Your task to perform on an android device: change your default location settings in chrome Image 0: 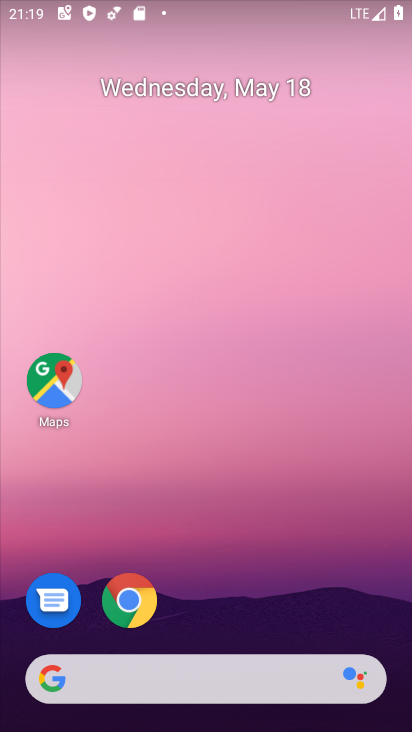
Step 0: click (135, 597)
Your task to perform on an android device: change your default location settings in chrome Image 1: 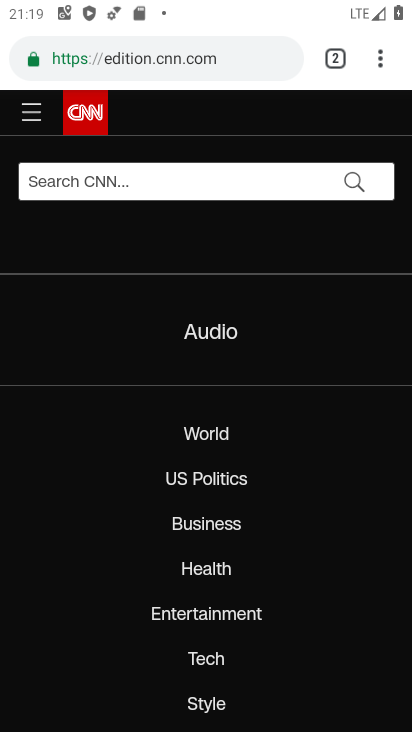
Step 1: drag from (376, 56) to (217, 633)
Your task to perform on an android device: change your default location settings in chrome Image 2: 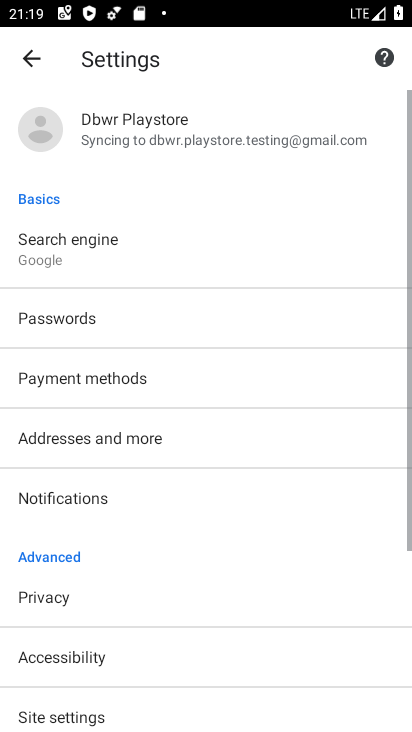
Step 2: drag from (214, 615) to (256, 309)
Your task to perform on an android device: change your default location settings in chrome Image 3: 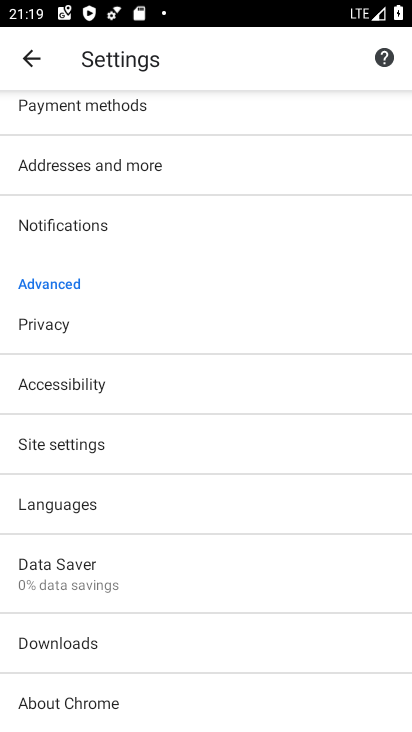
Step 3: click (90, 461)
Your task to perform on an android device: change your default location settings in chrome Image 4: 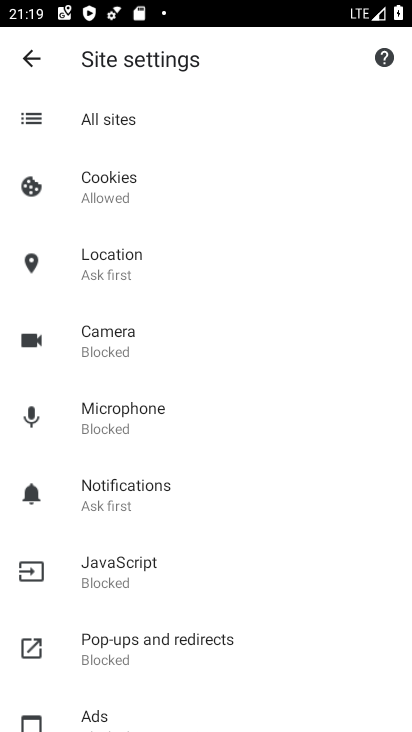
Step 4: click (123, 273)
Your task to perform on an android device: change your default location settings in chrome Image 5: 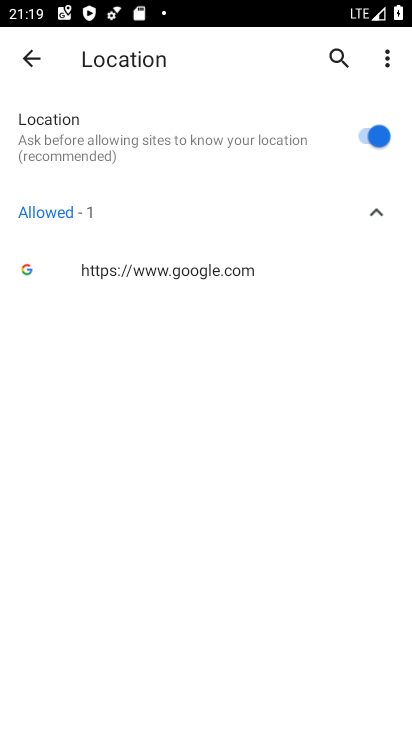
Step 5: click (258, 266)
Your task to perform on an android device: change your default location settings in chrome Image 6: 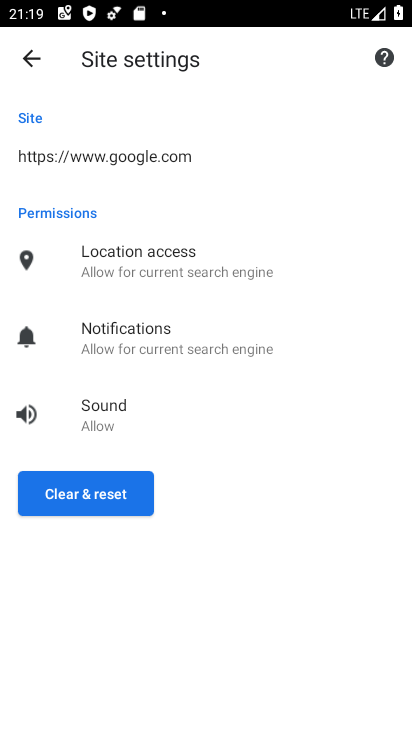
Step 6: click (211, 246)
Your task to perform on an android device: change your default location settings in chrome Image 7: 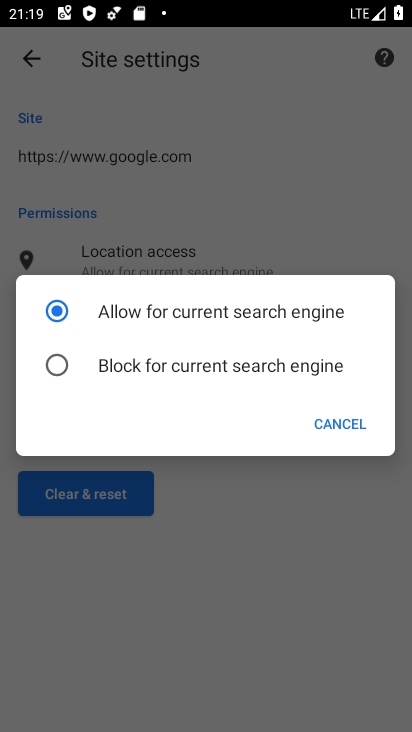
Step 7: click (116, 367)
Your task to perform on an android device: change your default location settings in chrome Image 8: 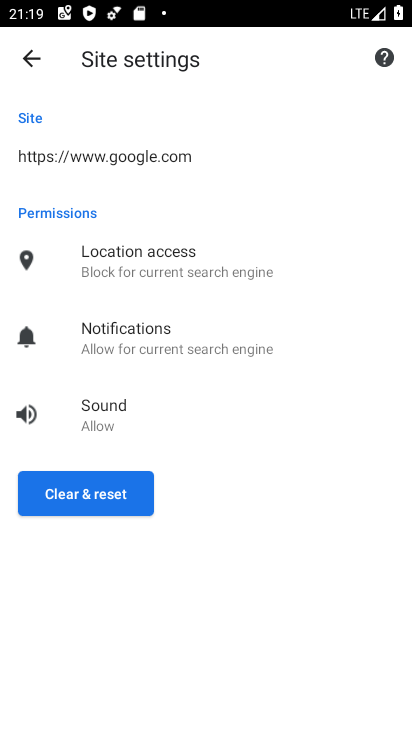
Step 8: task complete